Your task to perform on an android device: show emergency info Image 0: 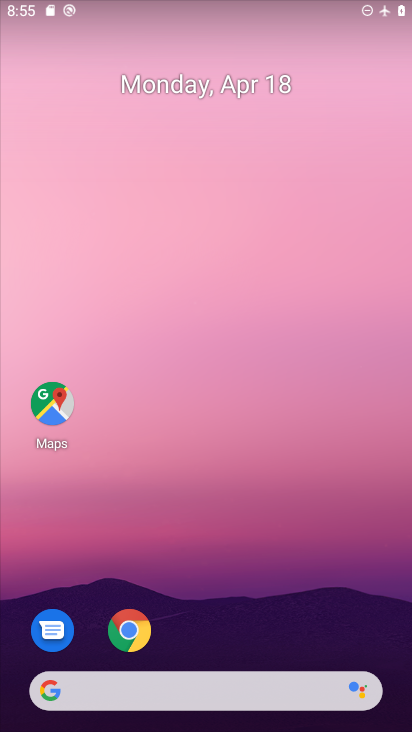
Step 0: drag from (218, 638) to (268, 222)
Your task to perform on an android device: show emergency info Image 1: 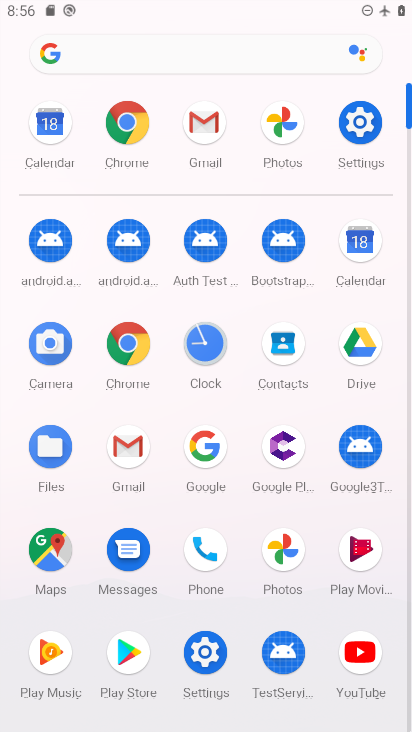
Step 1: click (358, 117)
Your task to perform on an android device: show emergency info Image 2: 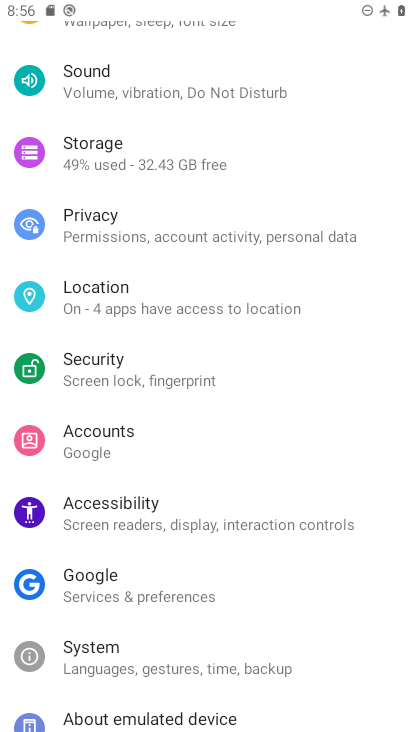
Step 2: drag from (161, 690) to (245, 318)
Your task to perform on an android device: show emergency info Image 3: 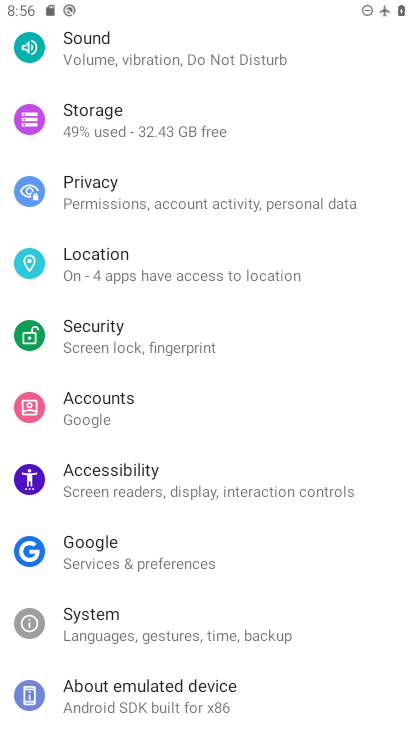
Step 3: click (145, 685)
Your task to perform on an android device: show emergency info Image 4: 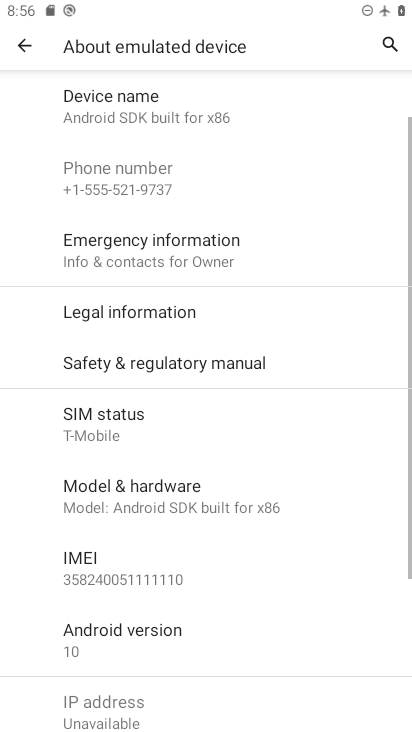
Step 4: task complete